Your task to perform on an android device: refresh tabs in the chrome app Image 0: 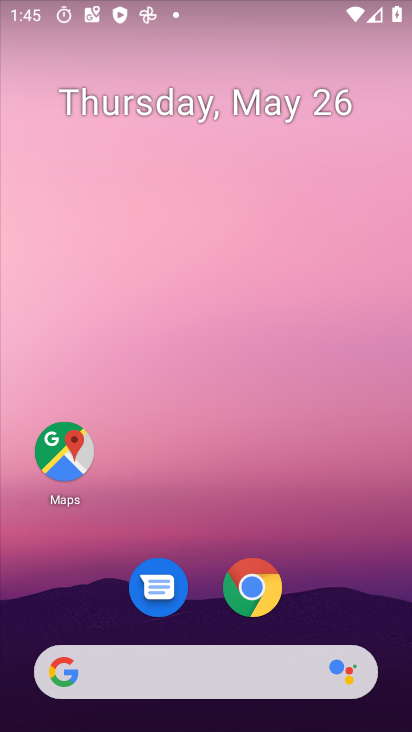
Step 0: drag from (376, 580) to (375, 98)
Your task to perform on an android device: refresh tabs in the chrome app Image 1: 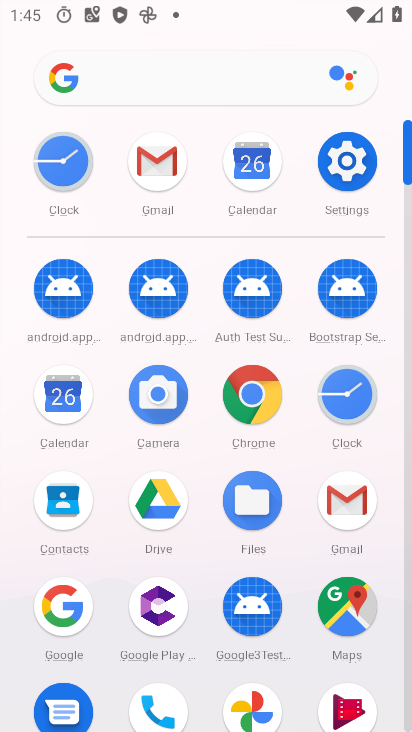
Step 1: click (262, 407)
Your task to perform on an android device: refresh tabs in the chrome app Image 2: 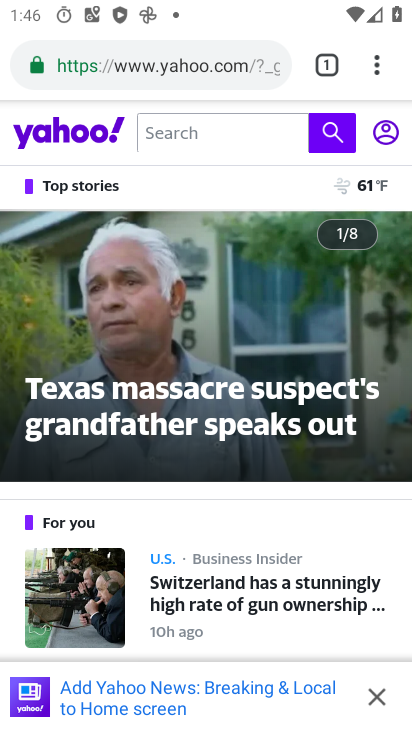
Step 2: click (379, 75)
Your task to perform on an android device: refresh tabs in the chrome app Image 3: 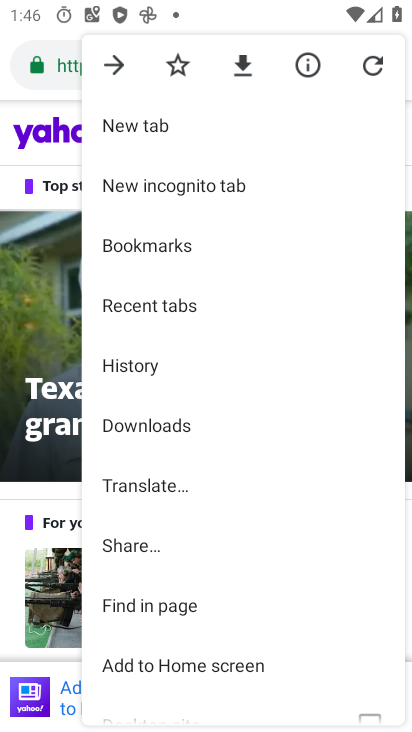
Step 3: click (382, 62)
Your task to perform on an android device: refresh tabs in the chrome app Image 4: 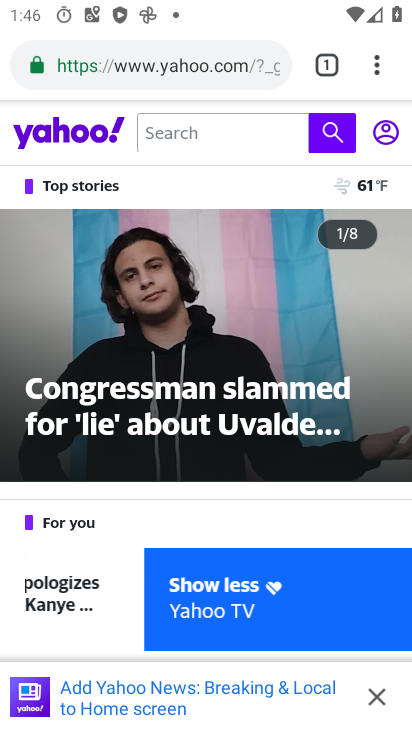
Step 4: task complete